Your task to perform on an android device: change alarm snooze length Image 0: 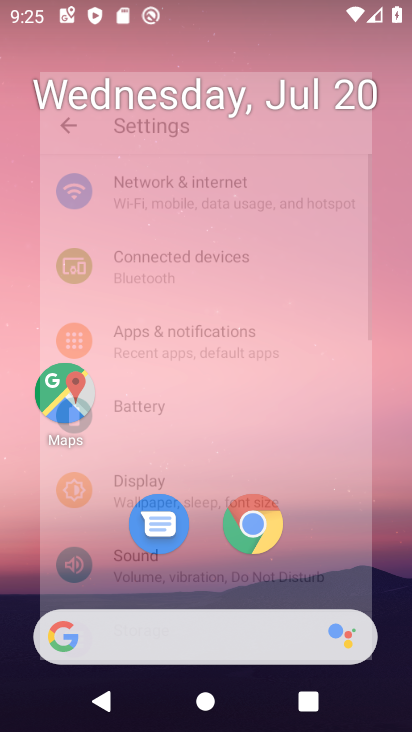
Step 0: press home button
Your task to perform on an android device: change alarm snooze length Image 1: 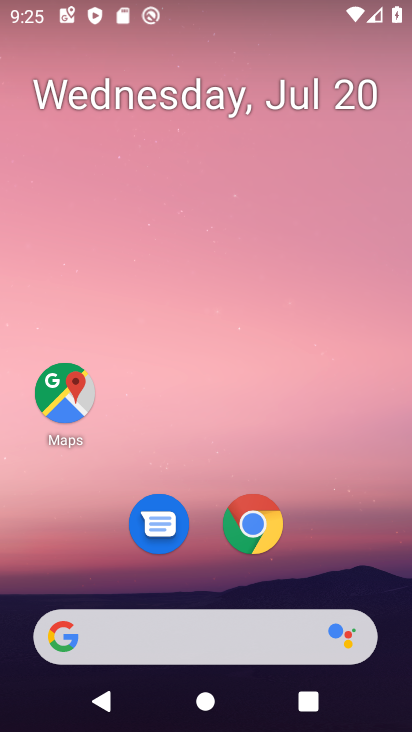
Step 1: drag from (195, 632) to (302, 131)
Your task to perform on an android device: change alarm snooze length Image 2: 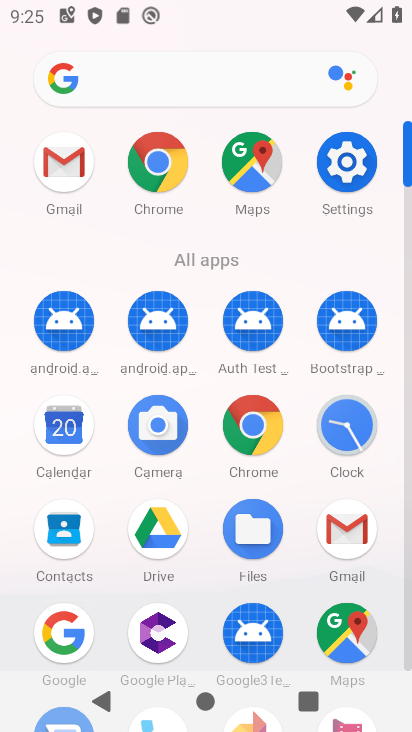
Step 2: click (355, 423)
Your task to perform on an android device: change alarm snooze length Image 3: 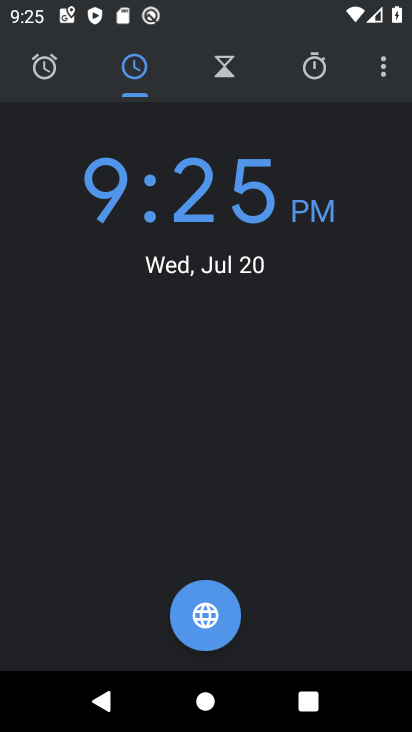
Step 3: click (382, 63)
Your task to perform on an android device: change alarm snooze length Image 4: 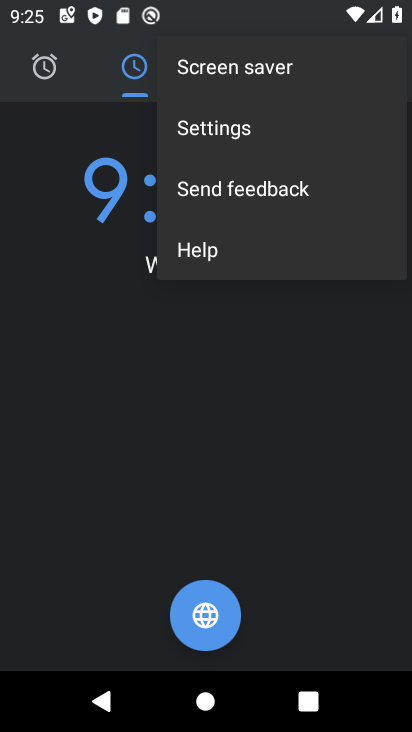
Step 4: click (220, 129)
Your task to perform on an android device: change alarm snooze length Image 5: 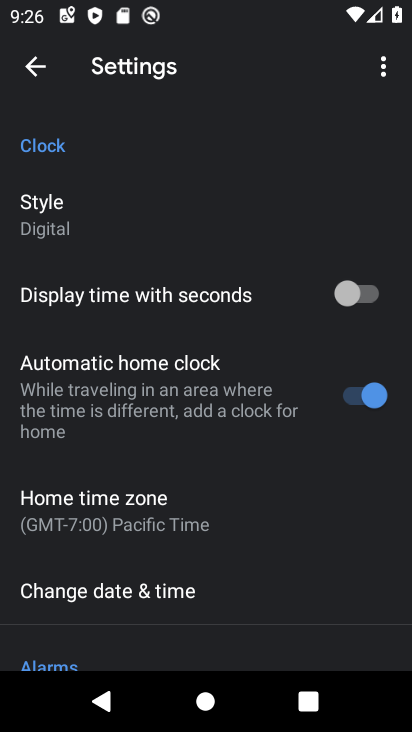
Step 5: drag from (256, 481) to (340, 66)
Your task to perform on an android device: change alarm snooze length Image 6: 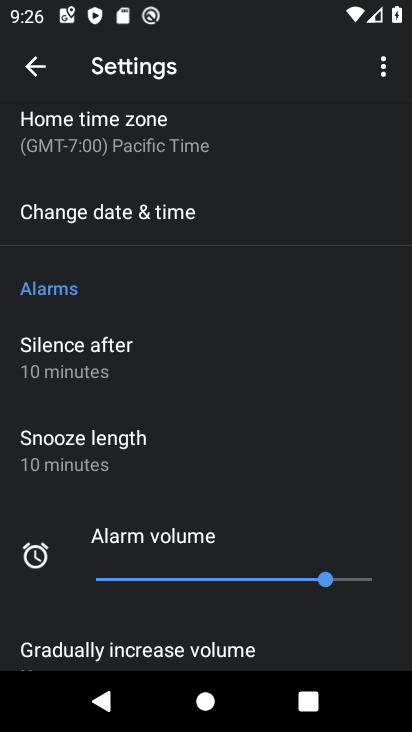
Step 6: click (134, 443)
Your task to perform on an android device: change alarm snooze length Image 7: 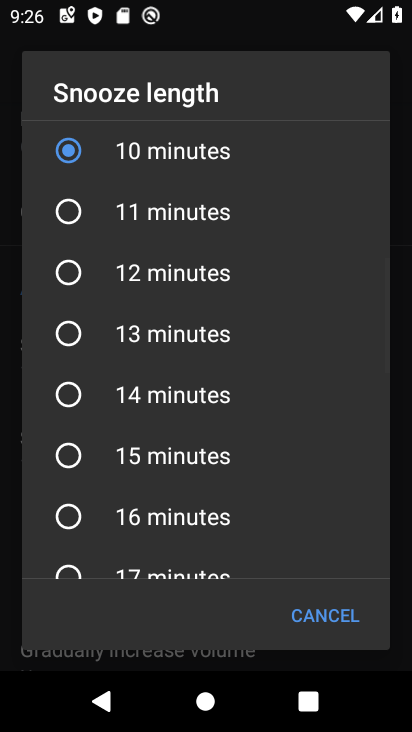
Step 7: click (70, 455)
Your task to perform on an android device: change alarm snooze length Image 8: 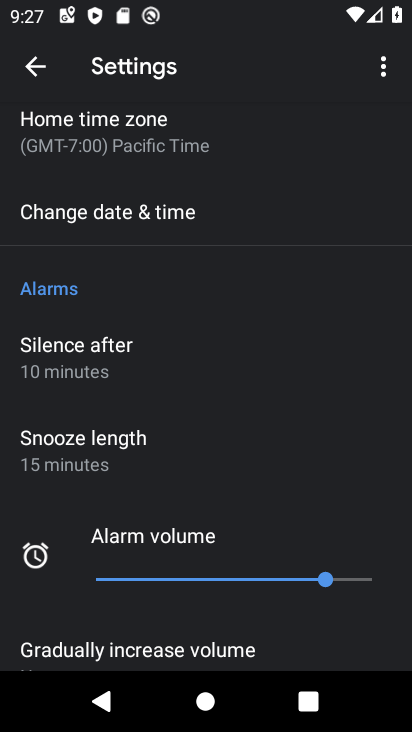
Step 8: task complete